Your task to perform on an android device: turn off smart reply in the gmail app Image 0: 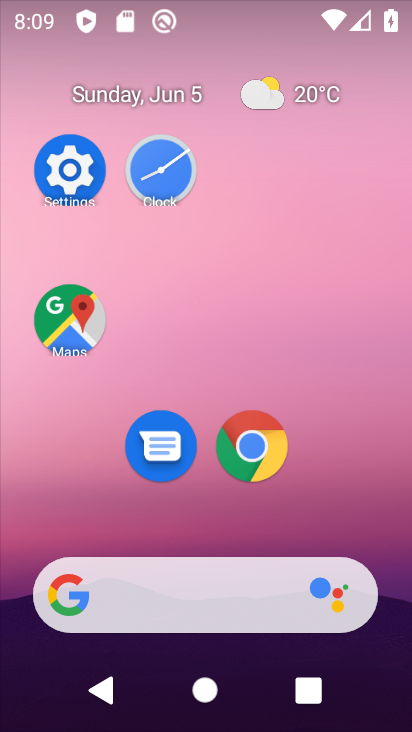
Step 0: drag from (303, 468) to (285, 149)
Your task to perform on an android device: turn off smart reply in the gmail app Image 1: 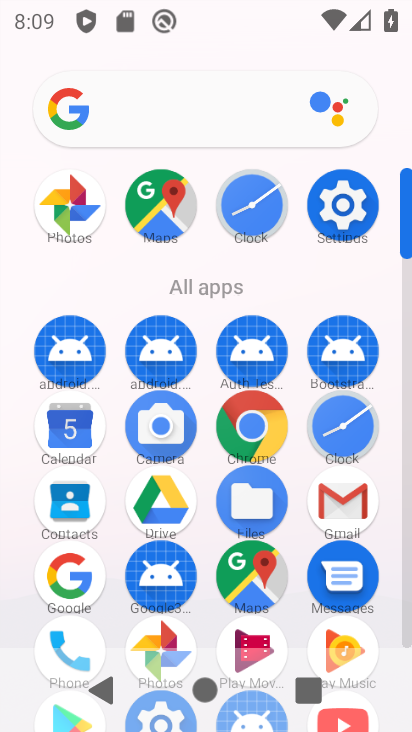
Step 1: drag from (364, 493) to (163, 282)
Your task to perform on an android device: turn off smart reply in the gmail app Image 2: 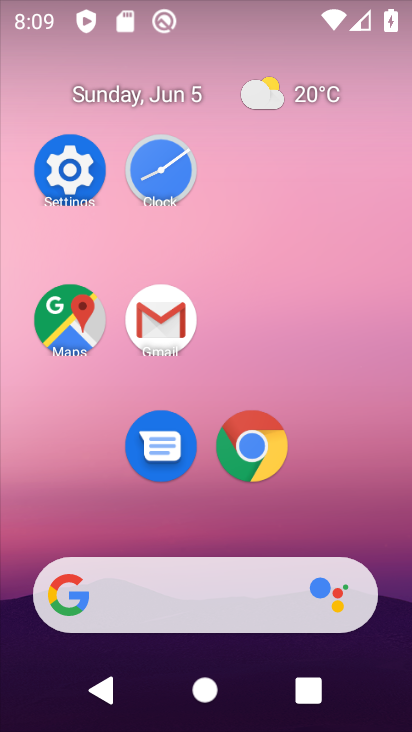
Step 2: click (177, 310)
Your task to perform on an android device: turn off smart reply in the gmail app Image 3: 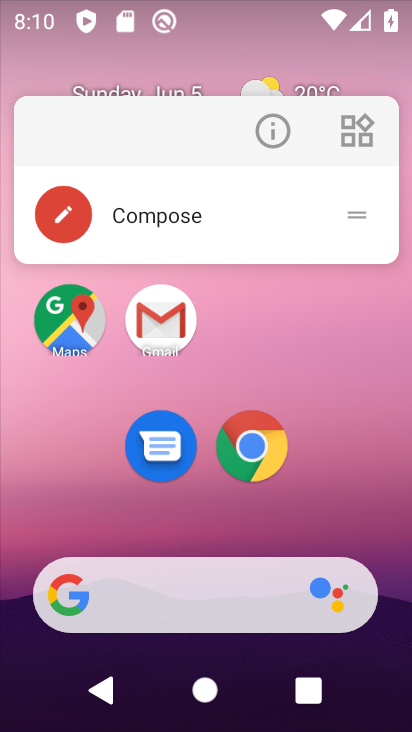
Step 3: click (169, 320)
Your task to perform on an android device: turn off smart reply in the gmail app Image 4: 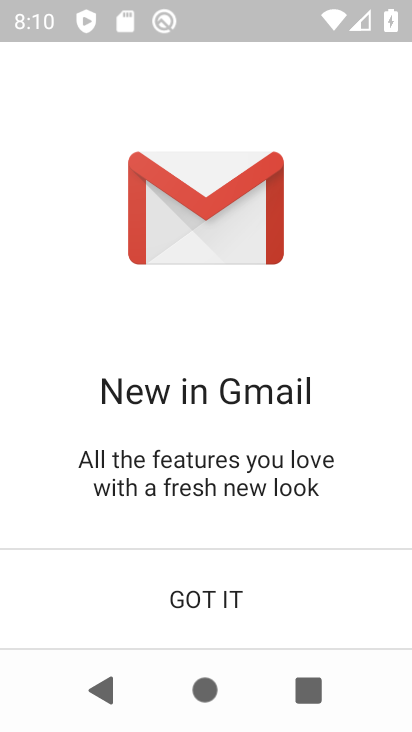
Step 4: click (251, 615)
Your task to perform on an android device: turn off smart reply in the gmail app Image 5: 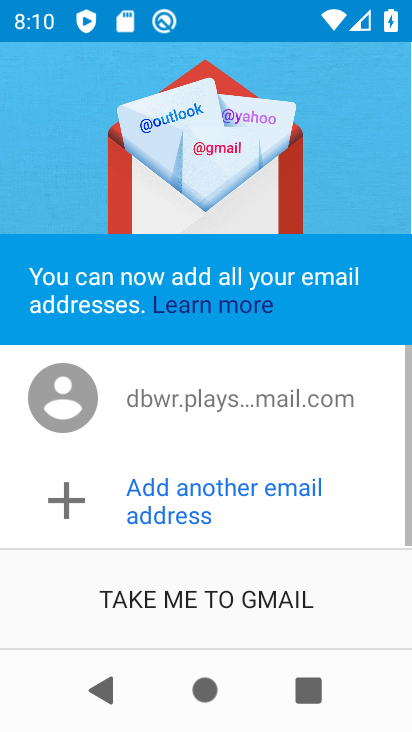
Step 5: click (269, 596)
Your task to perform on an android device: turn off smart reply in the gmail app Image 6: 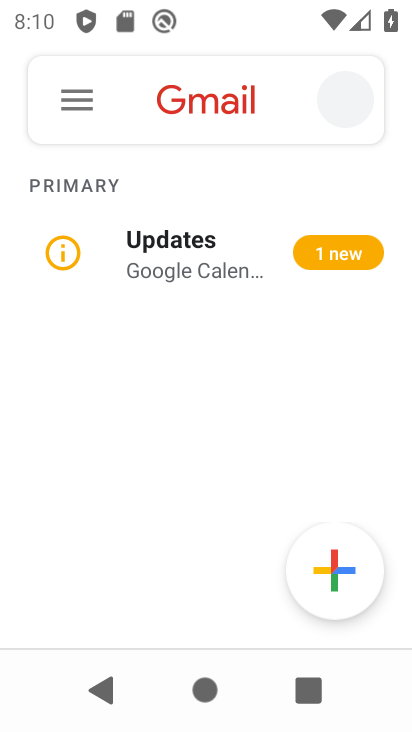
Step 6: click (83, 114)
Your task to perform on an android device: turn off smart reply in the gmail app Image 7: 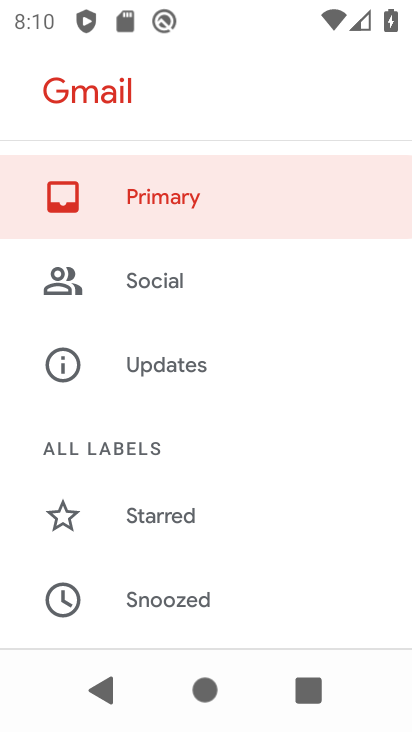
Step 7: drag from (184, 497) to (133, 231)
Your task to perform on an android device: turn off smart reply in the gmail app Image 8: 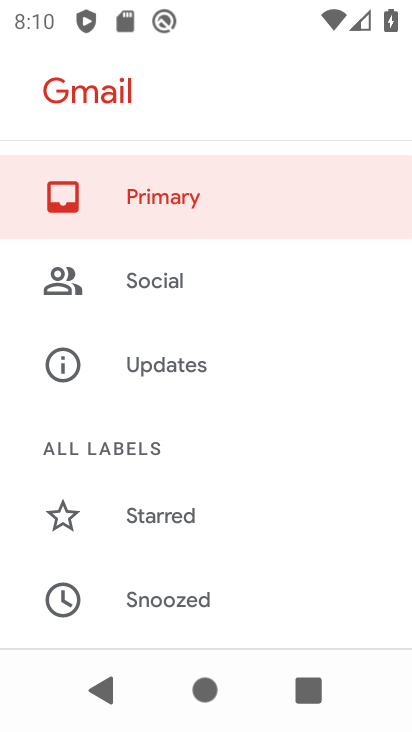
Step 8: drag from (192, 547) to (241, 241)
Your task to perform on an android device: turn off smart reply in the gmail app Image 9: 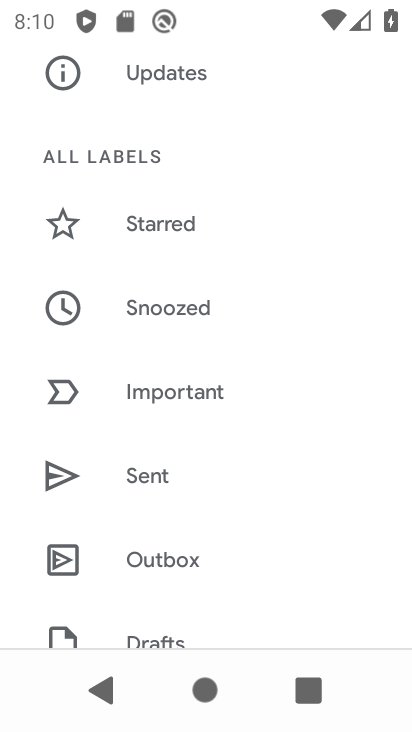
Step 9: drag from (260, 518) to (238, 246)
Your task to perform on an android device: turn off smart reply in the gmail app Image 10: 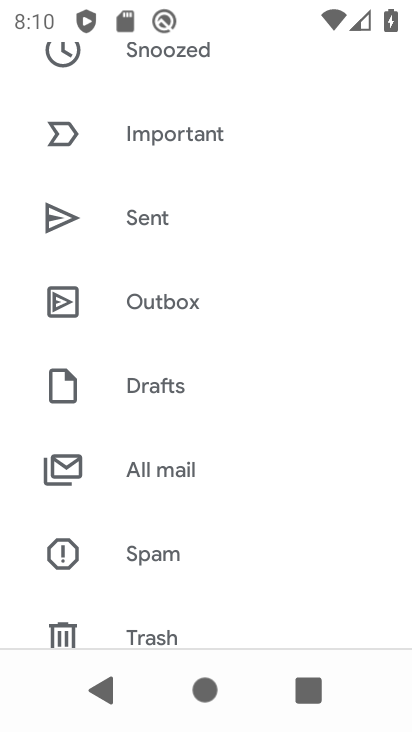
Step 10: drag from (256, 552) to (307, 293)
Your task to perform on an android device: turn off smart reply in the gmail app Image 11: 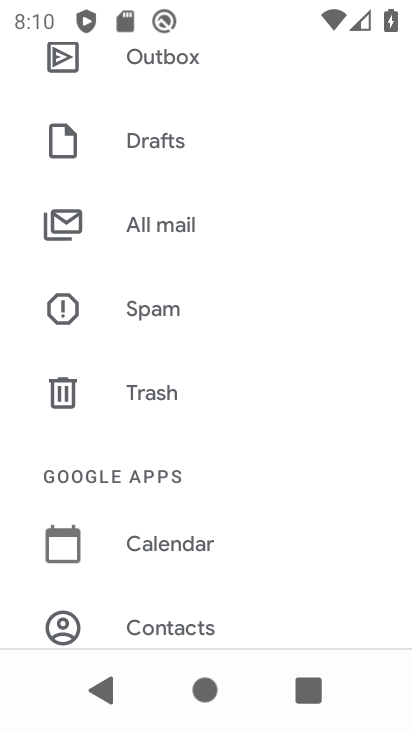
Step 11: drag from (242, 550) to (231, 326)
Your task to perform on an android device: turn off smart reply in the gmail app Image 12: 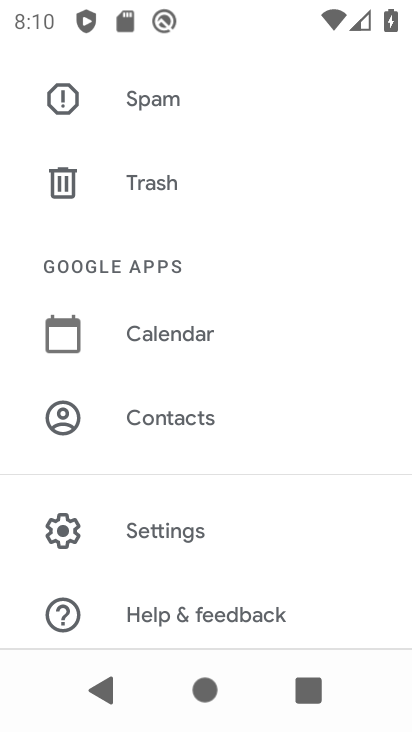
Step 12: click (225, 534)
Your task to perform on an android device: turn off smart reply in the gmail app Image 13: 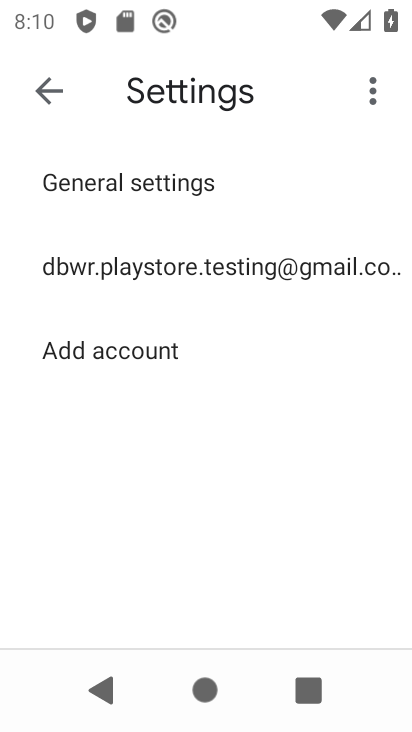
Step 13: click (213, 281)
Your task to perform on an android device: turn off smart reply in the gmail app Image 14: 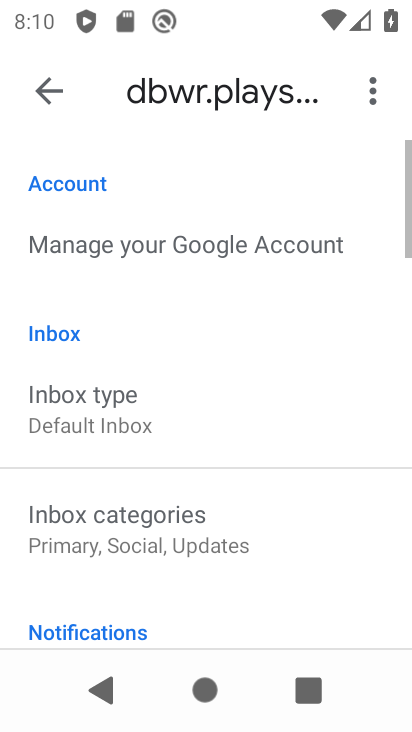
Step 14: drag from (209, 564) to (167, 259)
Your task to perform on an android device: turn off smart reply in the gmail app Image 15: 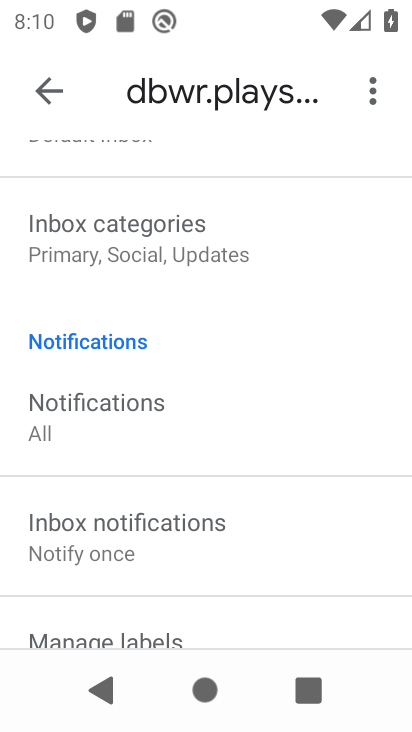
Step 15: drag from (228, 480) to (227, 230)
Your task to perform on an android device: turn off smart reply in the gmail app Image 16: 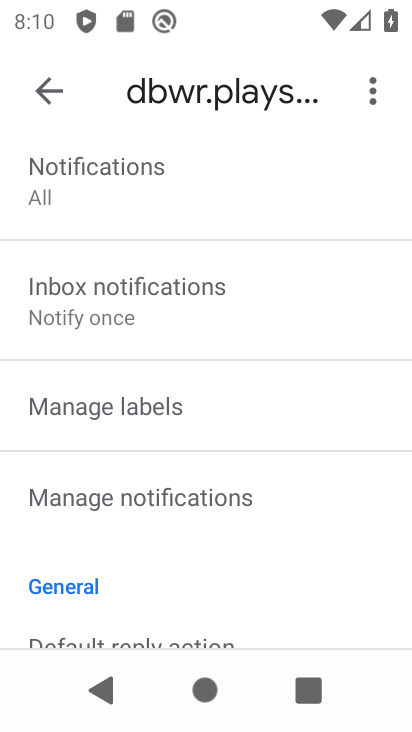
Step 16: drag from (309, 550) to (294, 162)
Your task to perform on an android device: turn off smart reply in the gmail app Image 17: 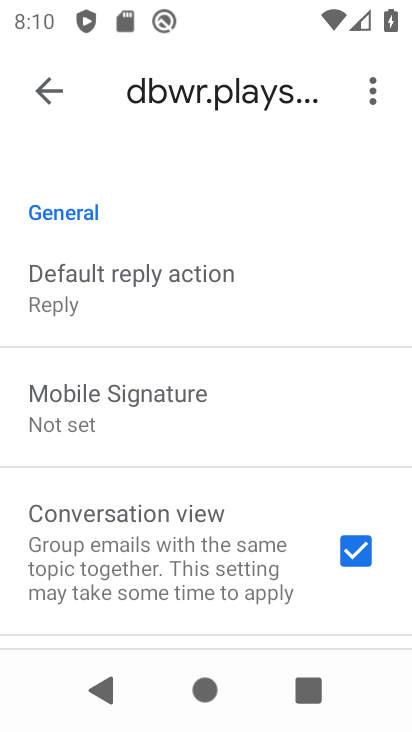
Step 17: drag from (315, 546) to (323, 186)
Your task to perform on an android device: turn off smart reply in the gmail app Image 18: 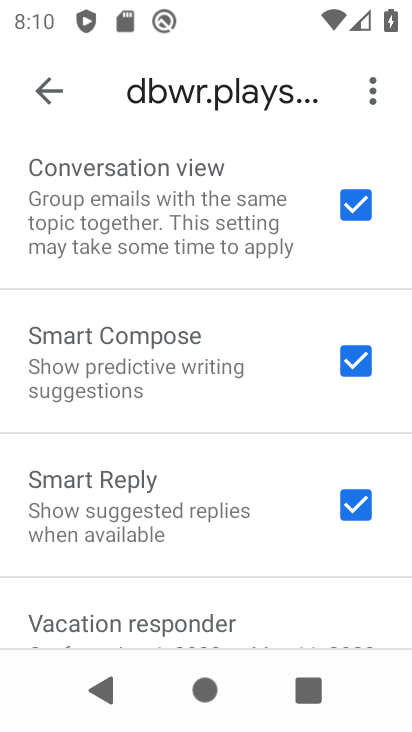
Step 18: click (371, 503)
Your task to perform on an android device: turn off smart reply in the gmail app Image 19: 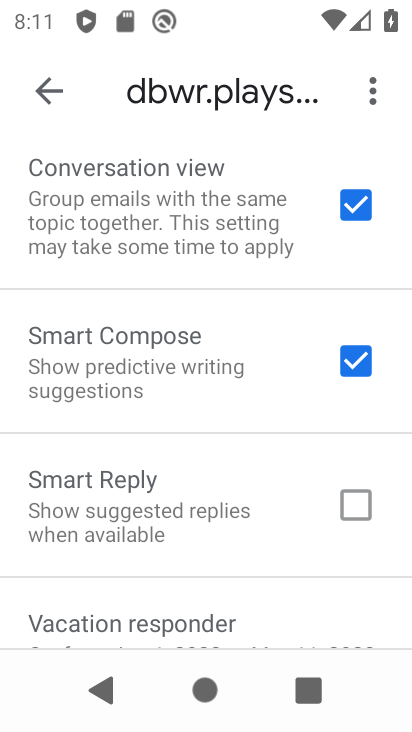
Step 19: task complete